Your task to perform on an android device: Search for seafood restaurants on Google Maps Image 0: 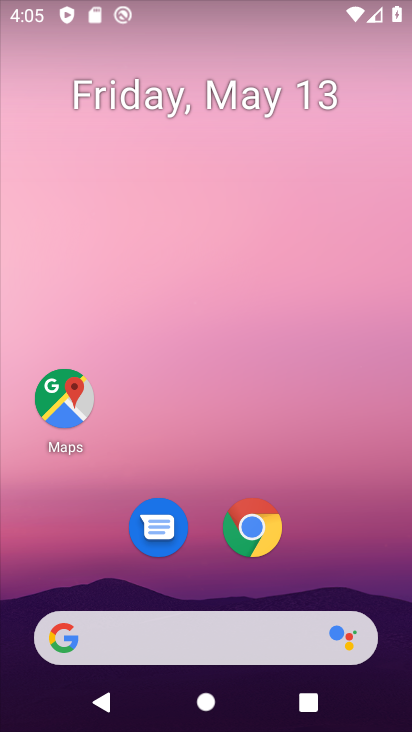
Step 0: drag from (337, 546) to (334, 10)
Your task to perform on an android device: Search for seafood restaurants on Google Maps Image 1: 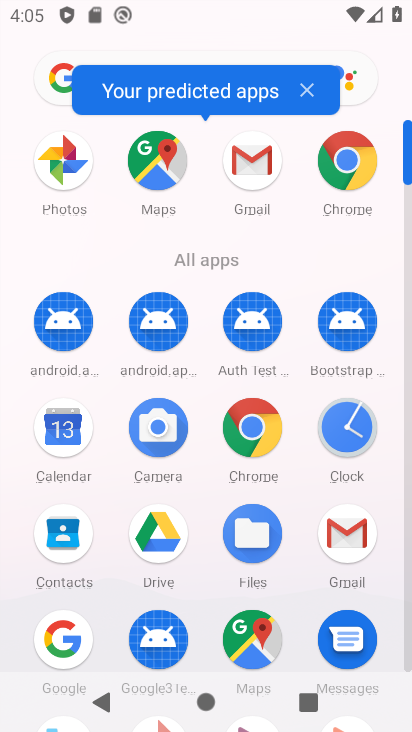
Step 1: click (164, 223)
Your task to perform on an android device: Search for seafood restaurants on Google Maps Image 2: 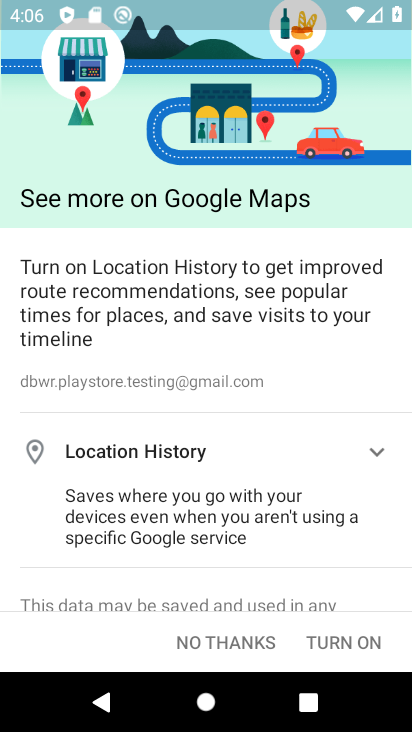
Step 2: click (339, 649)
Your task to perform on an android device: Search for seafood restaurants on Google Maps Image 3: 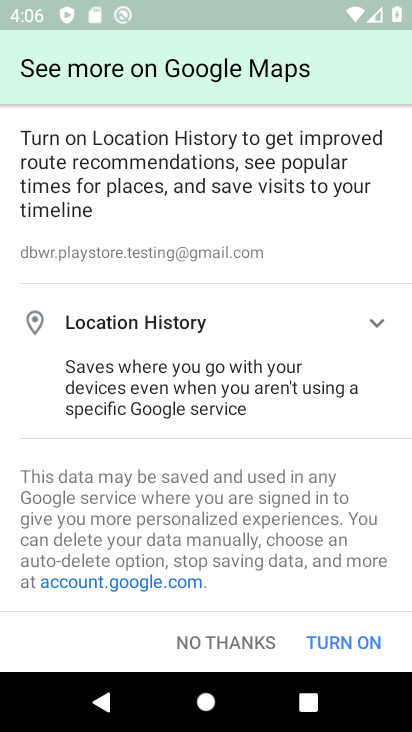
Step 3: click (338, 650)
Your task to perform on an android device: Search for seafood restaurants on Google Maps Image 4: 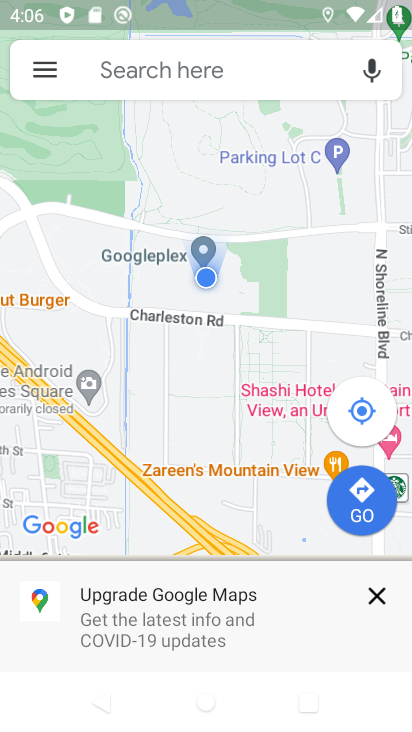
Step 4: click (289, 100)
Your task to perform on an android device: Search for seafood restaurants on Google Maps Image 5: 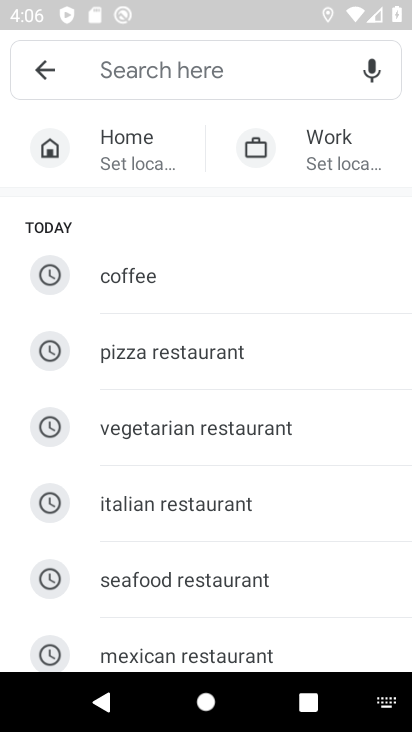
Step 5: click (188, 590)
Your task to perform on an android device: Search for seafood restaurants on Google Maps Image 6: 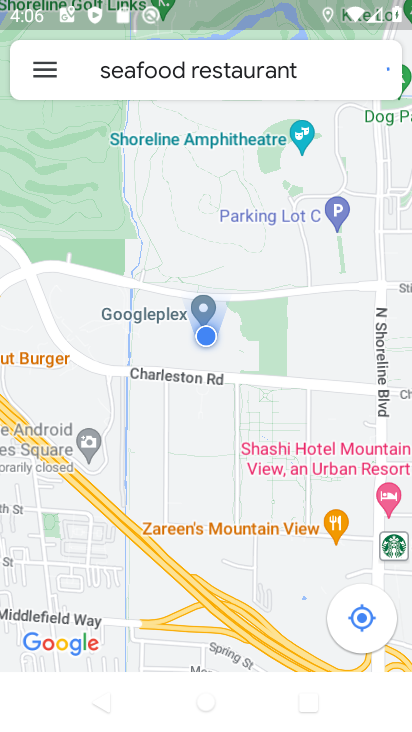
Step 6: task complete